Your task to perform on an android device: Open notification settings Image 0: 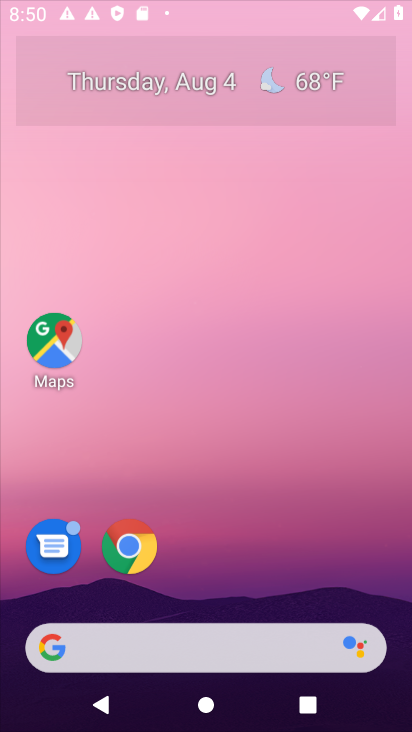
Step 0: press home button
Your task to perform on an android device: Open notification settings Image 1: 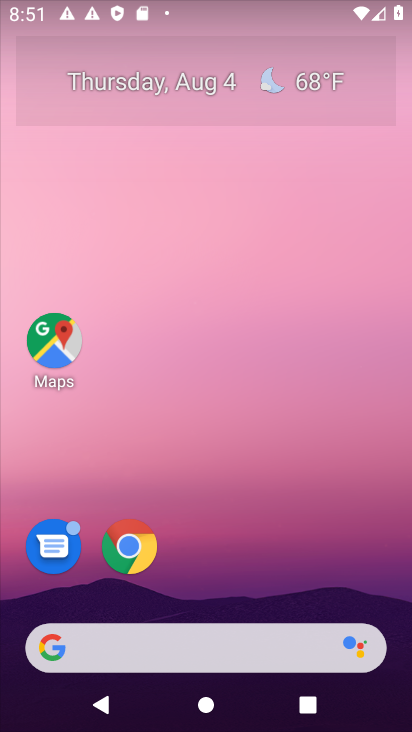
Step 1: drag from (206, 477) to (198, 133)
Your task to perform on an android device: Open notification settings Image 2: 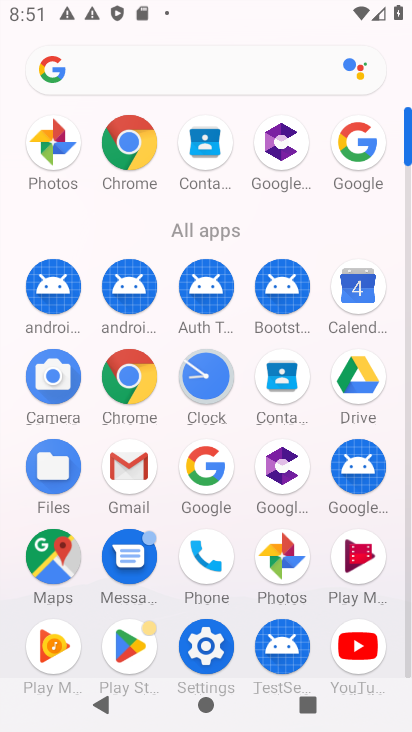
Step 2: click (218, 650)
Your task to perform on an android device: Open notification settings Image 3: 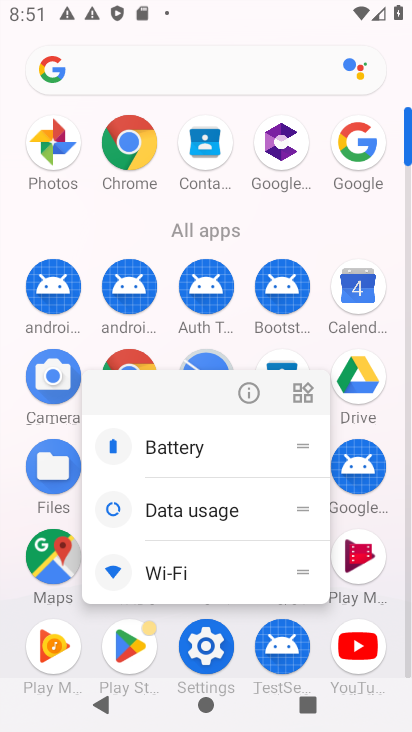
Step 3: click (218, 650)
Your task to perform on an android device: Open notification settings Image 4: 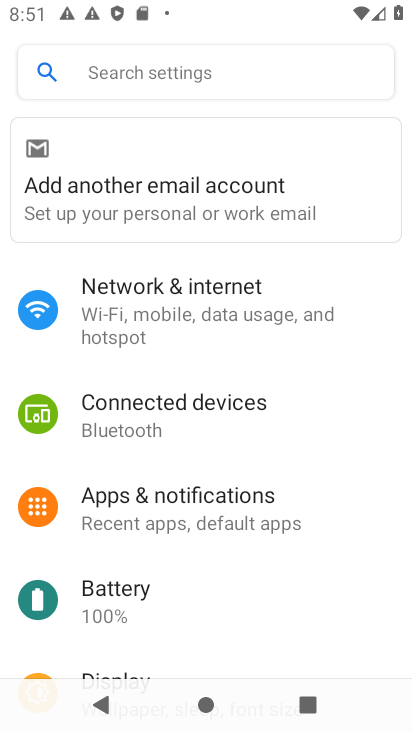
Step 4: click (172, 509)
Your task to perform on an android device: Open notification settings Image 5: 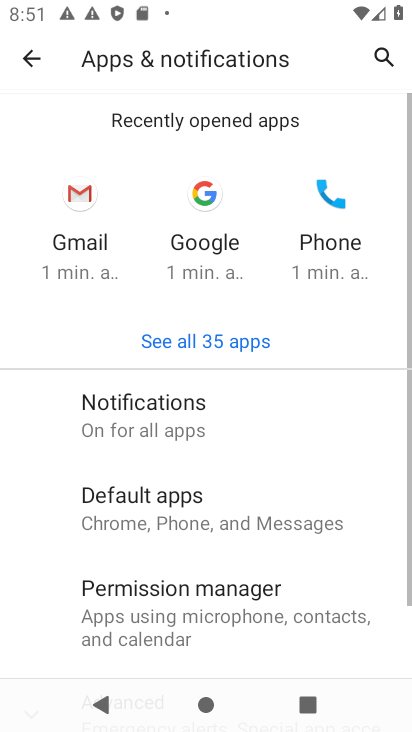
Step 5: click (114, 407)
Your task to perform on an android device: Open notification settings Image 6: 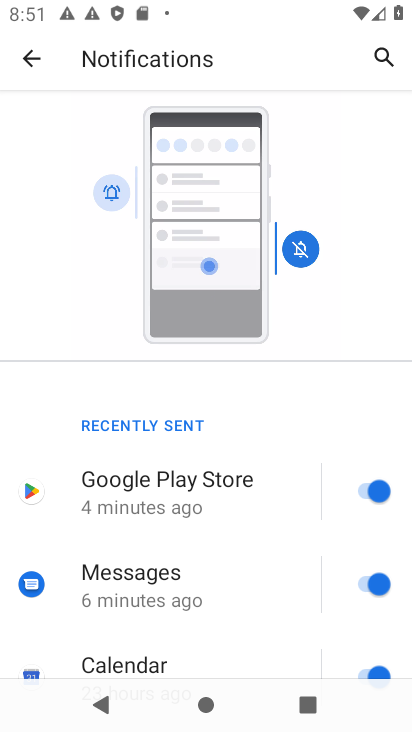
Step 6: task complete